Your task to perform on an android device: search for starred emails in the gmail app Image 0: 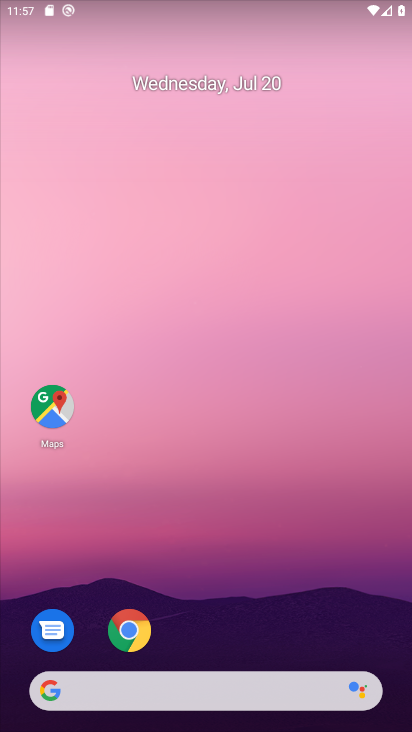
Step 0: drag from (182, 599) to (245, 377)
Your task to perform on an android device: search for starred emails in the gmail app Image 1: 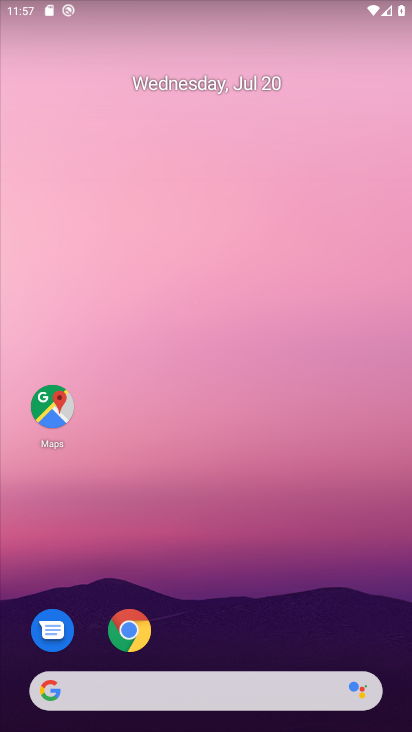
Step 1: drag from (193, 650) to (124, 9)
Your task to perform on an android device: search for starred emails in the gmail app Image 2: 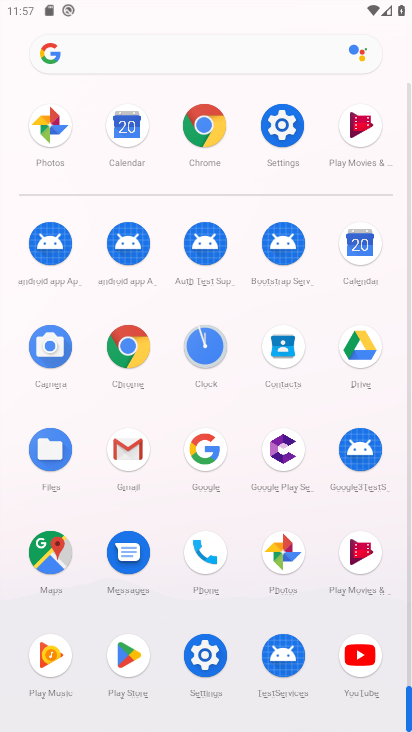
Step 2: click (126, 448)
Your task to perform on an android device: search for starred emails in the gmail app Image 3: 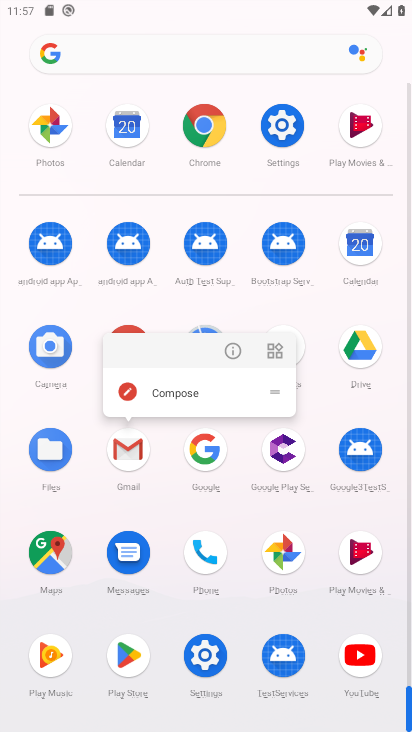
Step 3: click (230, 355)
Your task to perform on an android device: search for starred emails in the gmail app Image 4: 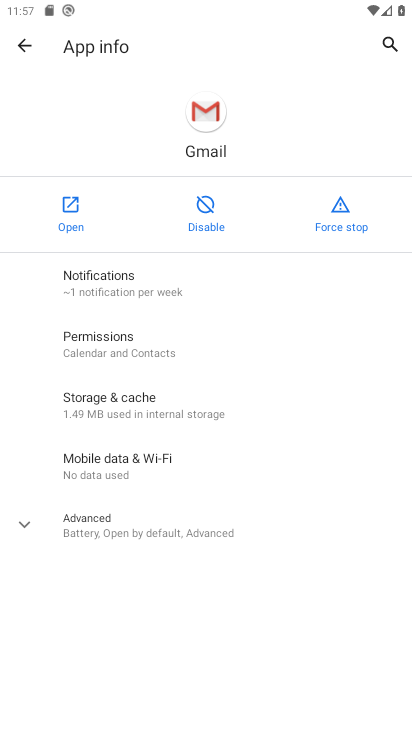
Step 4: click (76, 233)
Your task to perform on an android device: search for starred emails in the gmail app Image 5: 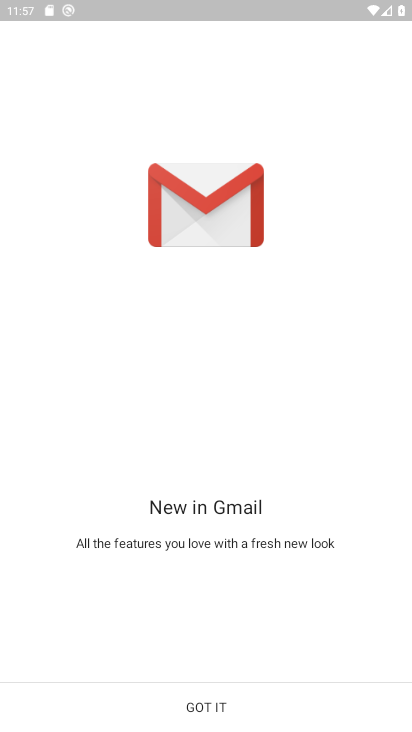
Step 5: click (180, 711)
Your task to perform on an android device: search for starred emails in the gmail app Image 6: 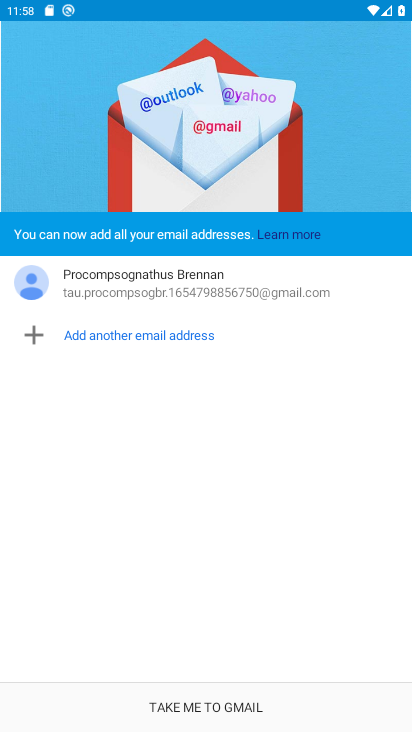
Step 6: drag from (55, 567) to (216, 106)
Your task to perform on an android device: search for starred emails in the gmail app Image 7: 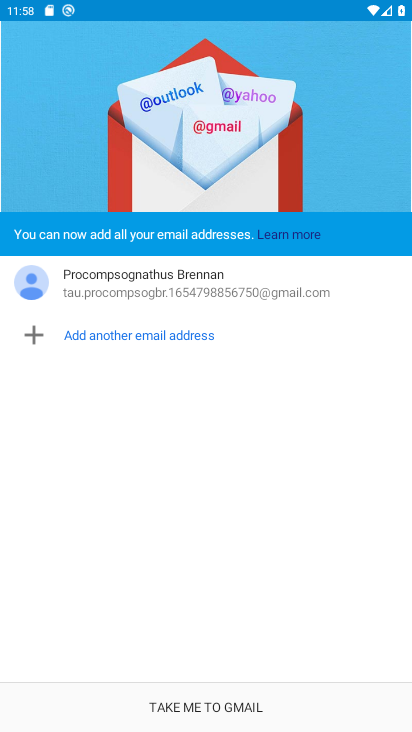
Step 7: drag from (221, 569) to (248, 330)
Your task to perform on an android device: search for starred emails in the gmail app Image 8: 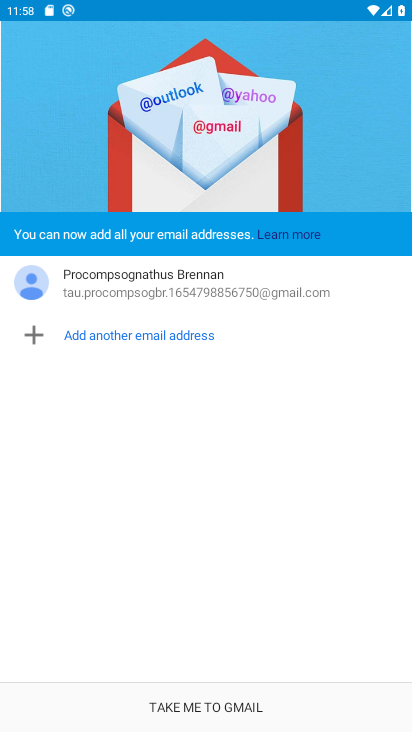
Step 8: click (186, 698)
Your task to perform on an android device: search for starred emails in the gmail app Image 9: 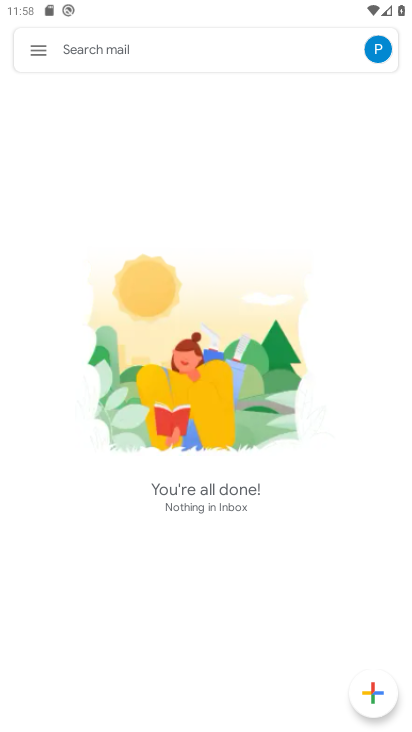
Step 9: drag from (193, 645) to (193, 282)
Your task to perform on an android device: search for starred emails in the gmail app Image 10: 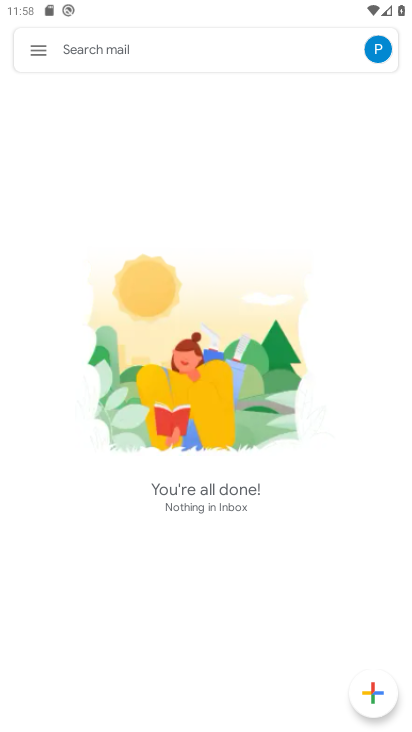
Step 10: click (33, 30)
Your task to perform on an android device: search for starred emails in the gmail app Image 11: 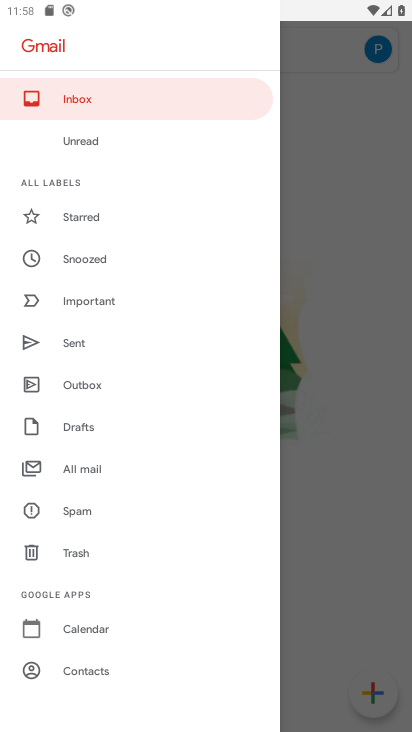
Step 11: click (96, 259)
Your task to perform on an android device: search for starred emails in the gmail app Image 12: 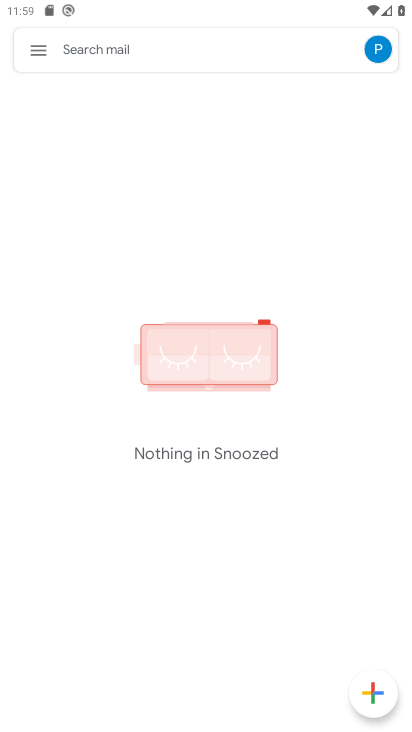
Step 12: drag from (209, 527) to (303, 154)
Your task to perform on an android device: search for starred emails in the gmail app Image 13: 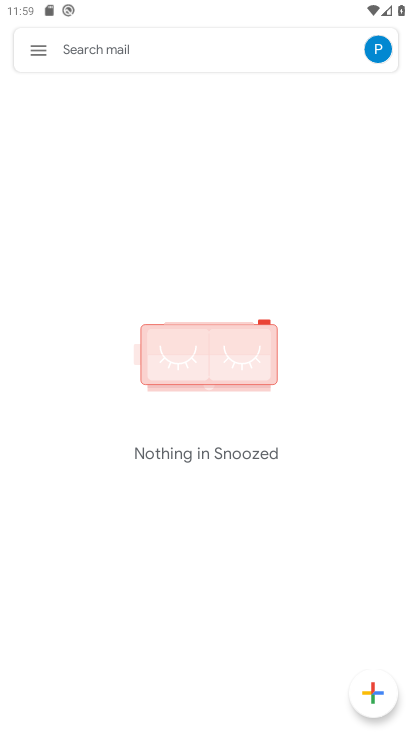
Step 13: click (25, 52)
Your task to perform on an android device: search for starred emails in the gmail app Image 14: 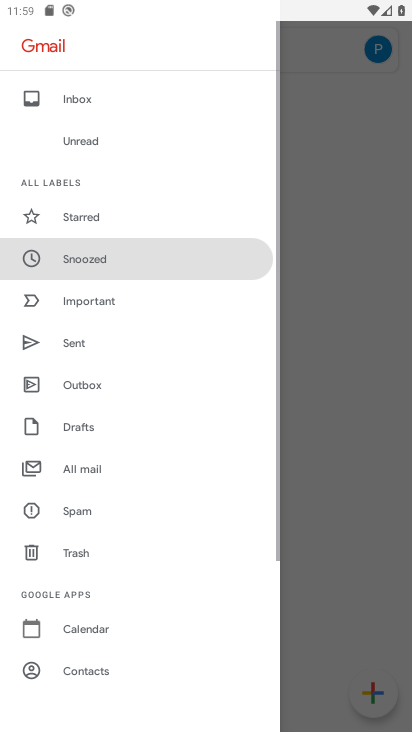
Step 14: click (102, 212)
Your task to perform on an android device: search for starred emails in the gmail app Image 15: 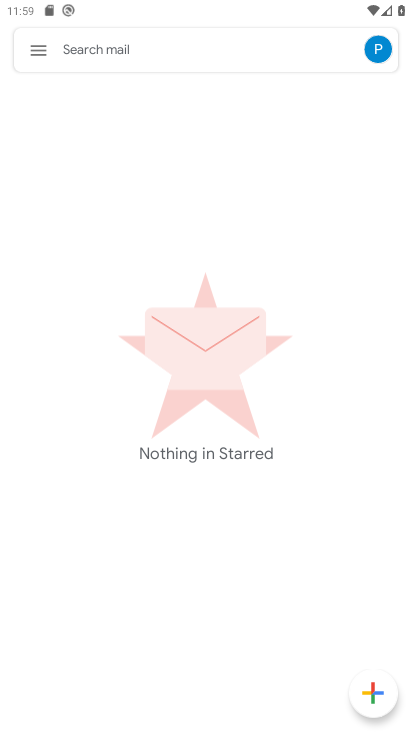
Step 15: task complete